Your task to perform on an android device: What is the recent news? Image 0: 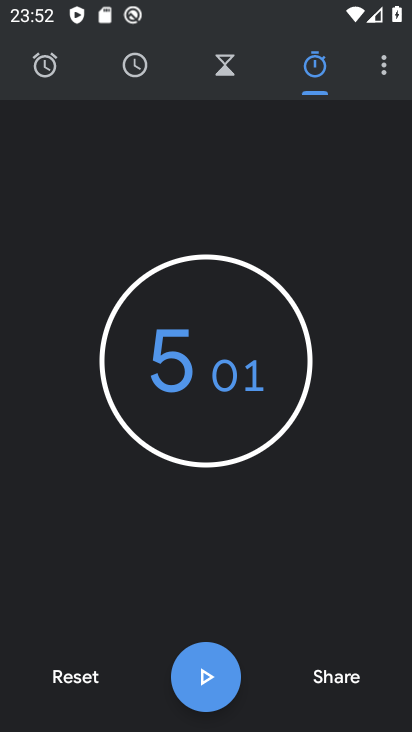
Step 0: press home button
Your task to perform on an android device: What is the recent news? Image 1: 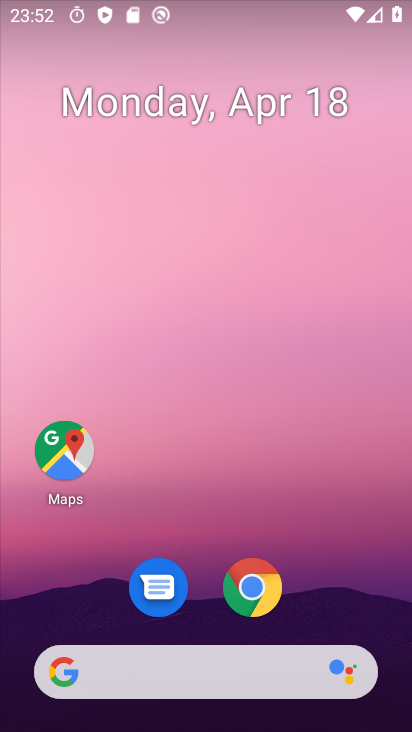
Step 1: drag from (374, 542) to (368, 121)
Your task to perform on an android device: What is the recent news? Image 2: 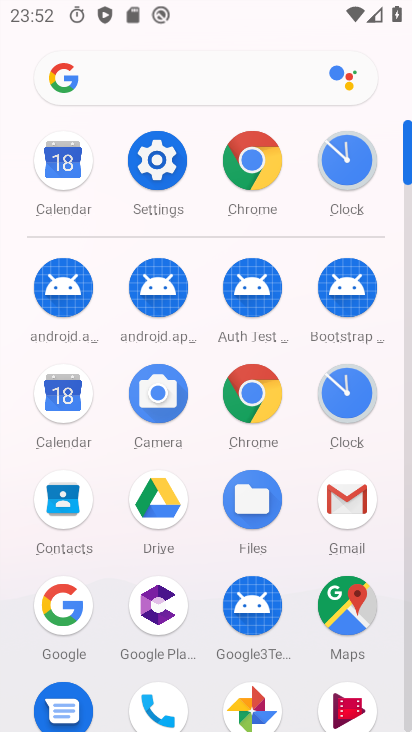
Step 2: click (246, 156)
Your task to perform on an android device: What is the recent news? Image 3: 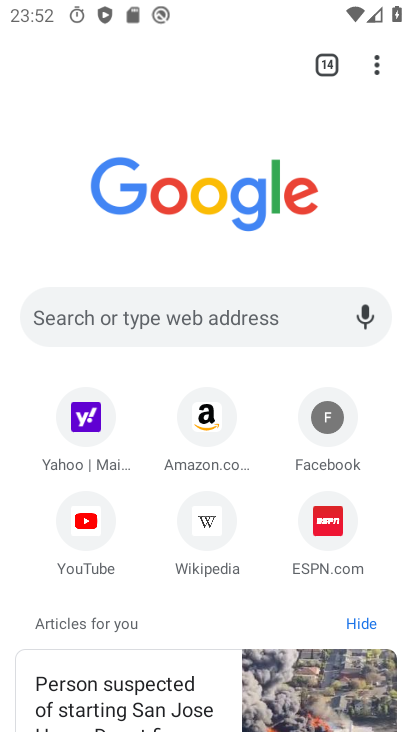
Step 3: click (220, 314)
Your task to perform on an android device: What is the recent news? Image 4: 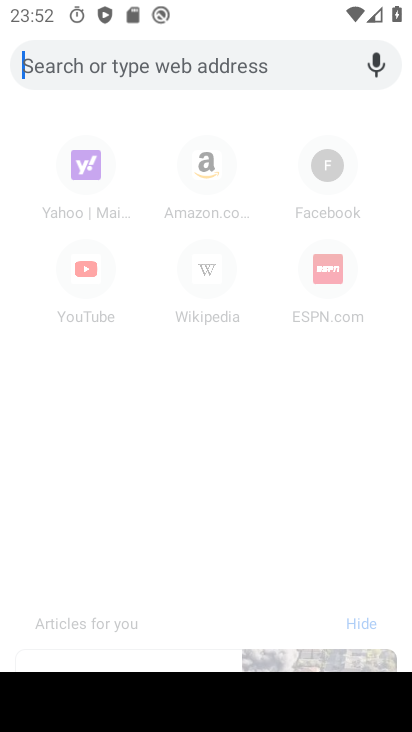
Step 4: type "recent news"
Your task to perform on an android device: What is the recent news? Image 5: 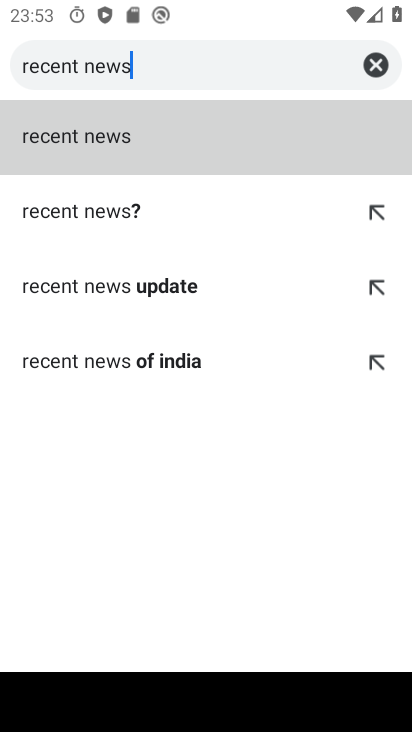
Step 5: click (100, 131)
Your task to perform on an android device: What is the recent news? Image 6: 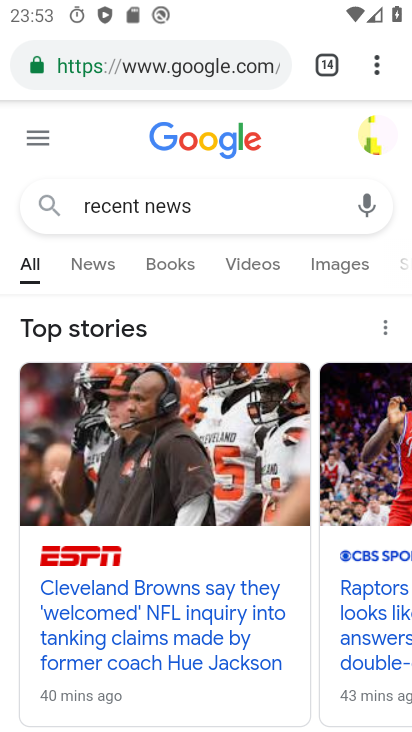
Step 6: task complete